Your task to perform on an android device: check battery use Image 0: 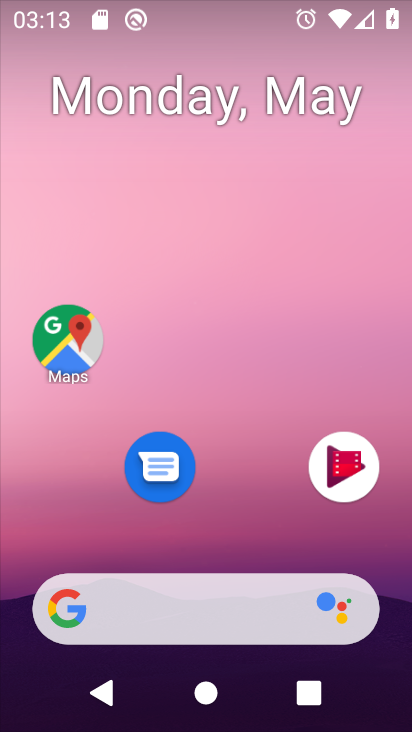
Step 0: drag from (227, 505) to (274, 142)
Your task to perform on an android device: check battery use Image 1: 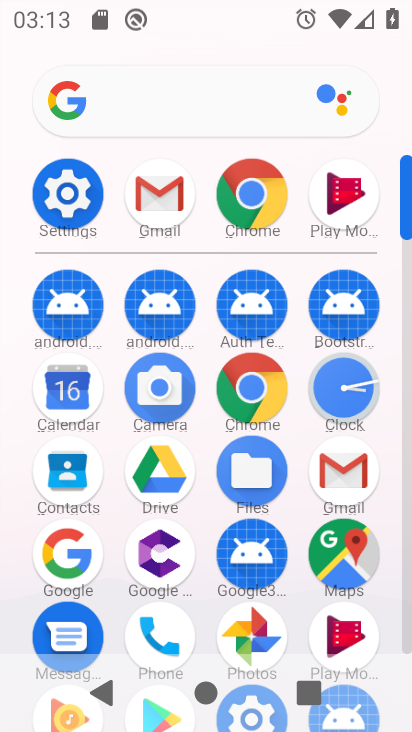
Step 1: click (72, 182)
Your task to perform on an android device: check battery use Image 2: 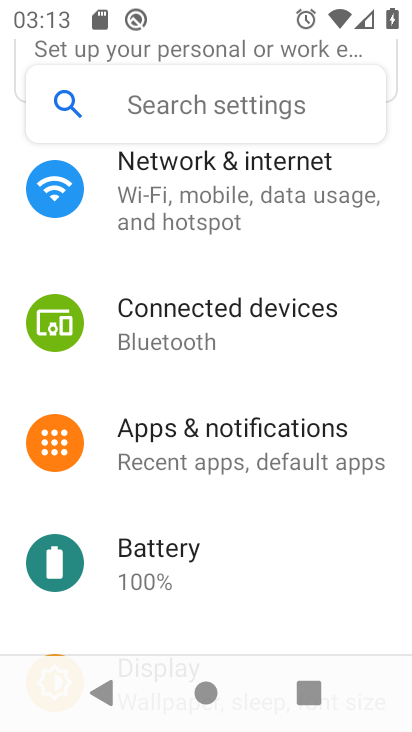
Step 2: click (188, 570)
Your task to perform on an android device: check battery use Image 3: 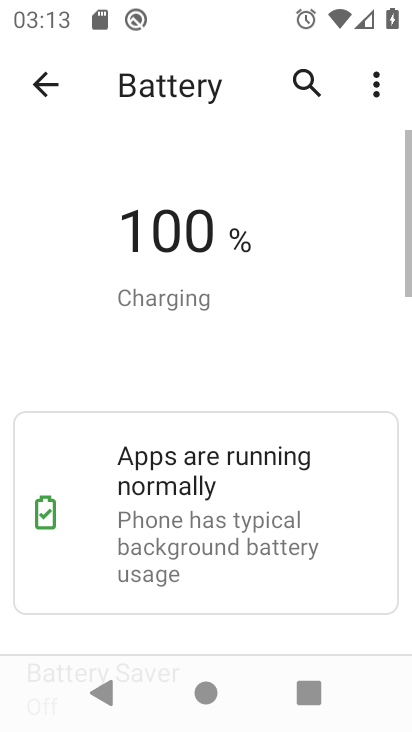
Step 3: task complete